Your task to perform on an android device: Open Maps and search for coffee Image 0: 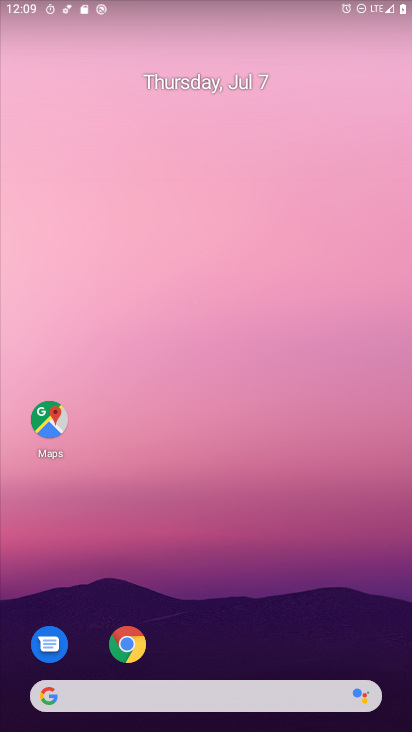
Step 0: drag from (212, 647) to (187, 160)
Your task to perform on an android device: Open Maps and search for coffee Image 1: 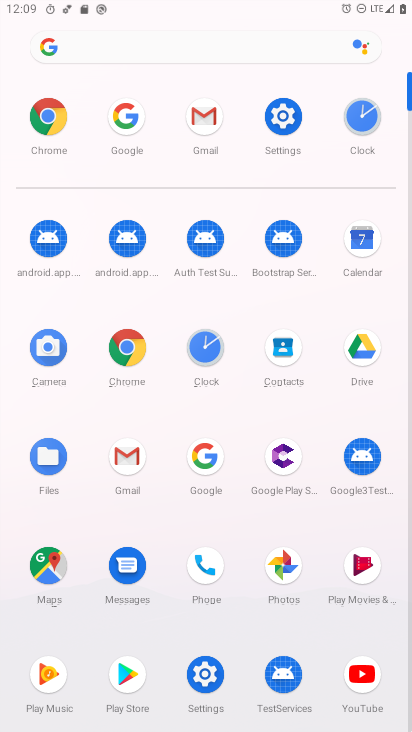
Step 1: click (49, 567)
Your task to perform on an android device: Open Maps and search for coffee Image 2: 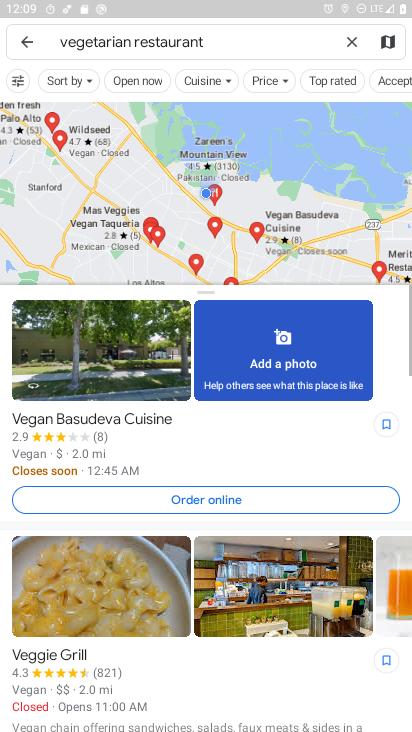
Step 2: click (354, 43)
Your task to perform on an android device: Open Maps and search for coffee Image 3: 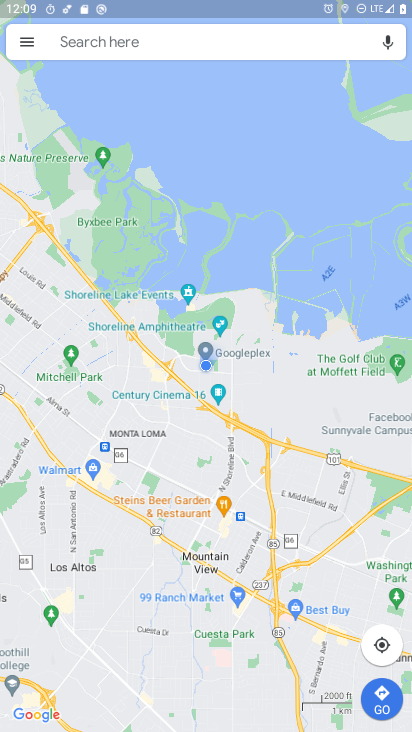
Step 3: click (131, 30)
Your task to perform on an android device: Open Maps and search for coffee Image 4: 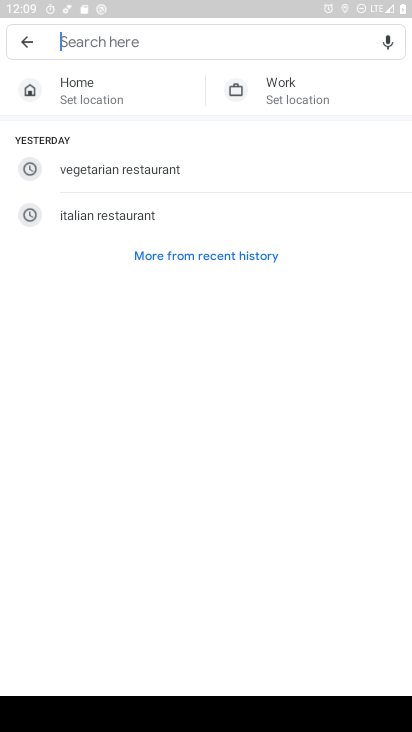
Step 4: type "coffee"
Your task to perform on an android device: Open Maps and search for coffee Image 5: 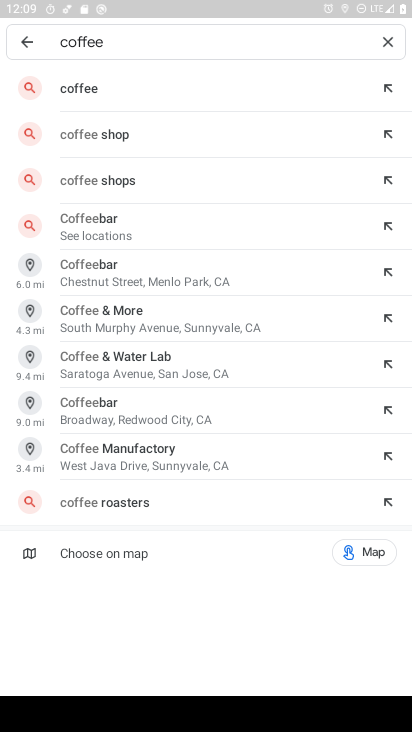
Step 5: click (114, 84)
Your task to perform on an android device: Open Maps and search for coffee Image 6: 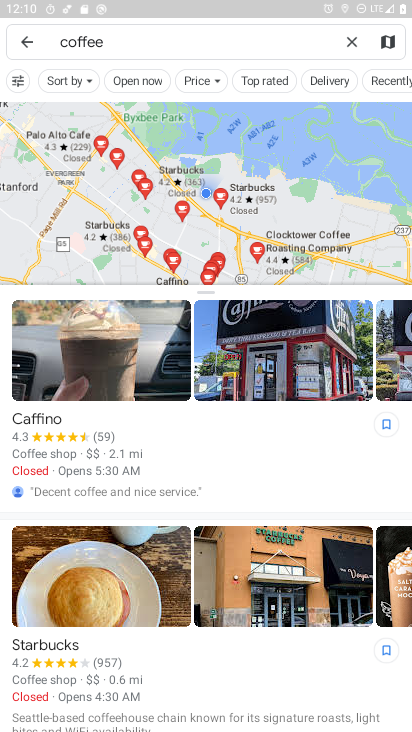
Step 6: task complete